Your task to perform on an android device: see creations saved in the google photos Image 0: 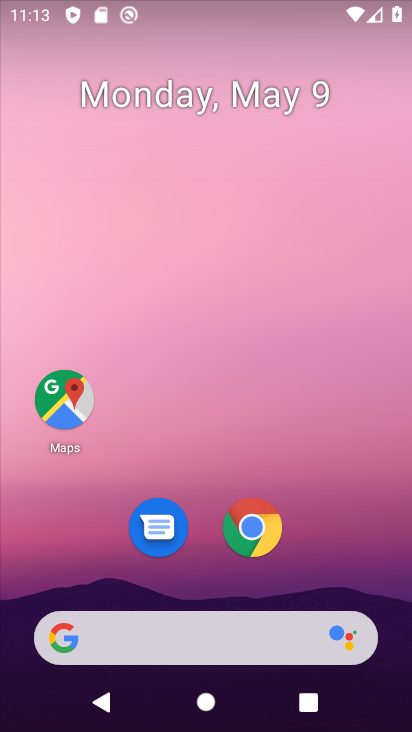
Step 0: drag from (167, 611) to (324, 17)
Your task to perform on an android device: see creations saved in the google photos Image 1: 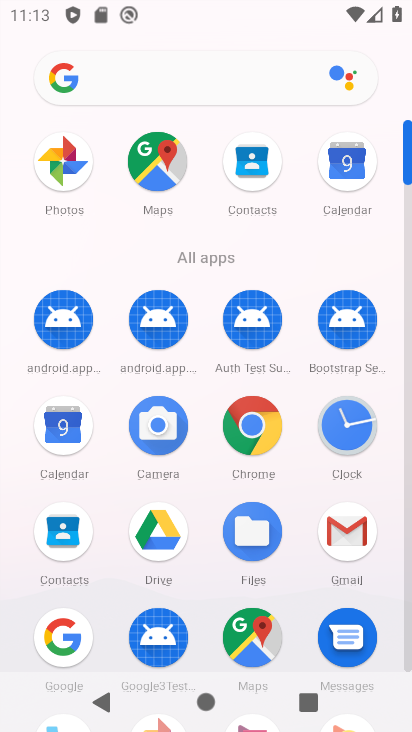
Step 1: drag from (159, 585) to (207, 413)
Your task to perform on an android device: see creations saved in the google photos Image 2: 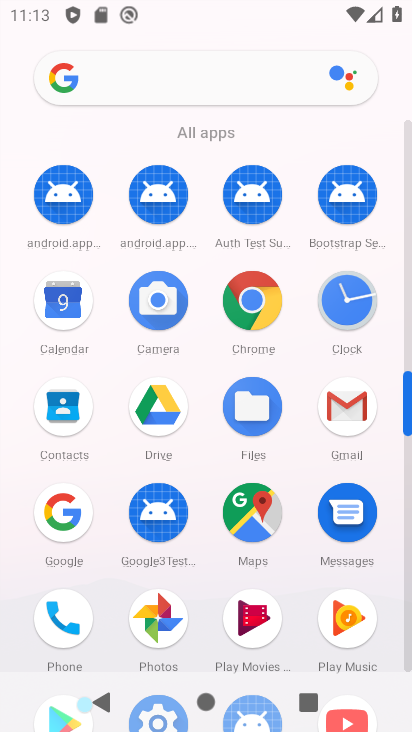
Step 2: click (168, 630)
Your task to perform on an android device: see creations saved in the google photos Image 3: 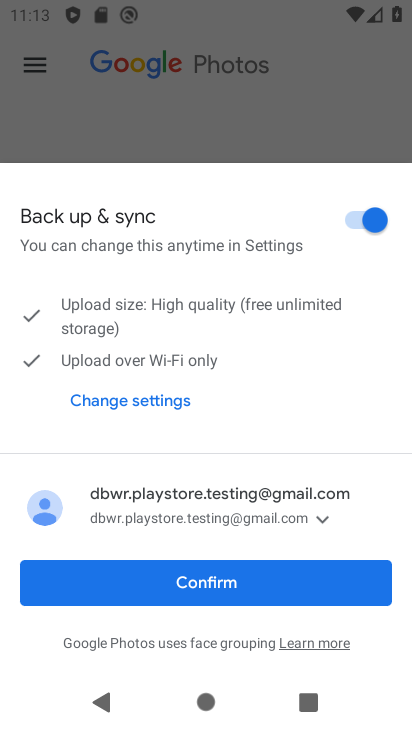
Step 3: click (221, 586)
Your task to perform on an android device: see creations saved in the google photos Image 4: 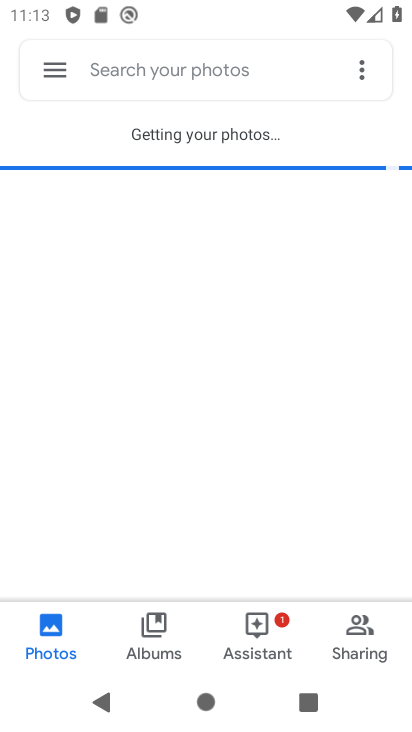
Step 4: click (151, 630)
Your task to perform on an android device: see creations saved in the google photos Image 5: 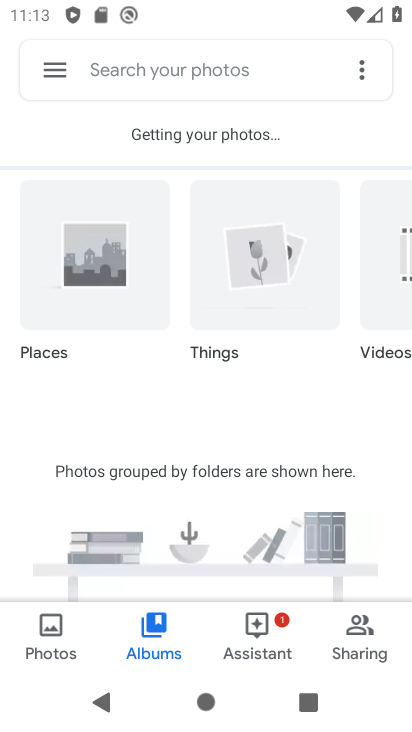
Step 5: drag from (362, 297) to (10, 263)
Your task to perform on an android device: see creations saved in the google photos Image 6: 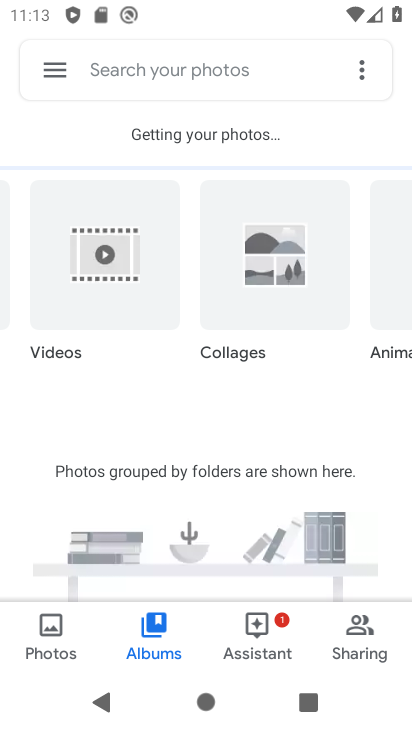
Step 6: drag from (349, 263) to (0, 264)
Your task to perform on an android device: see creations saved in the google photos Image 7: 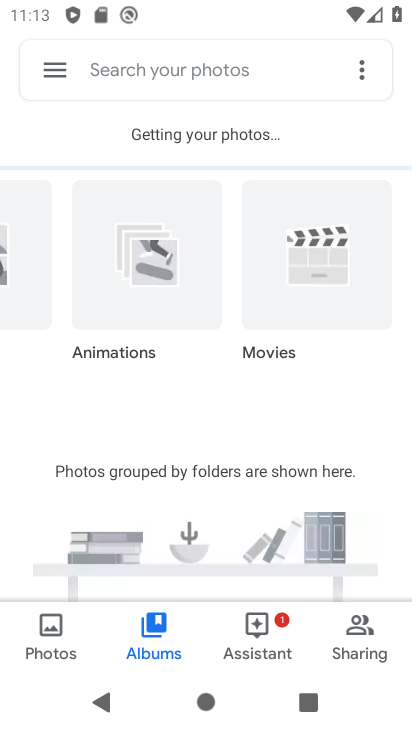
Step 7: drag from (382, 322) to (76, 306)
Your task to perform on an android device: see creations saved in the google photos Image 8: 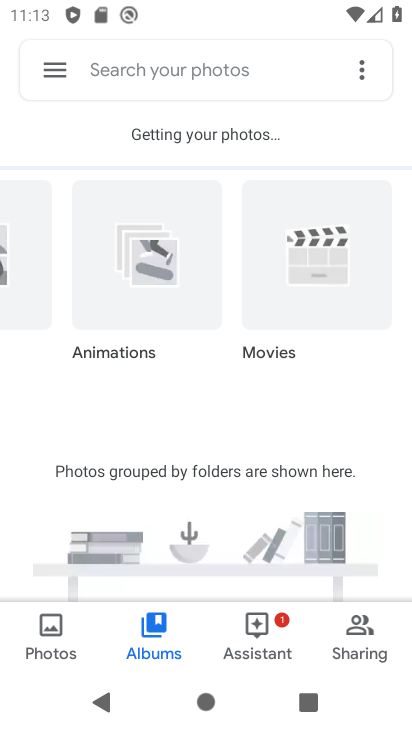
Step 8: drag from (57, 283) to (401, 256)
Your task to perform on an android device: see creations saved in the google photos Image 9: 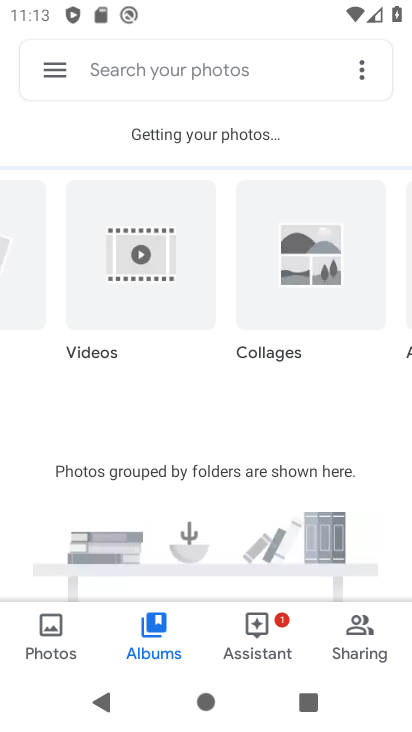
Step 9: drag from (70, 270) to (366, 246)
Your task to perform on an android device: see creations saved in the google photos Image 10: 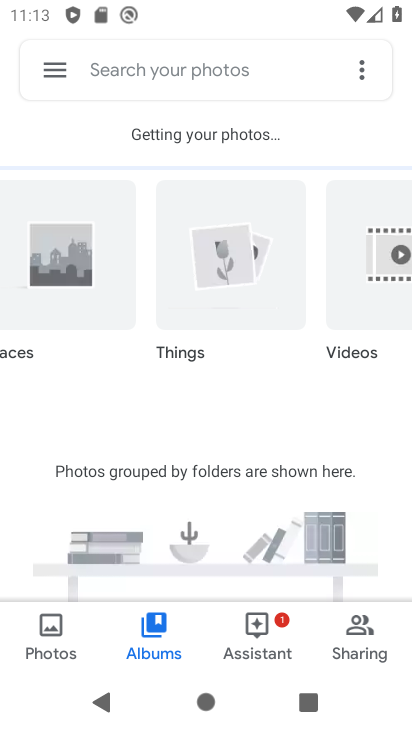
Step 10: drag from (137, 277) to (393, 240)
Your task to perform on an android device: see creations saved in the google photos Image 11: 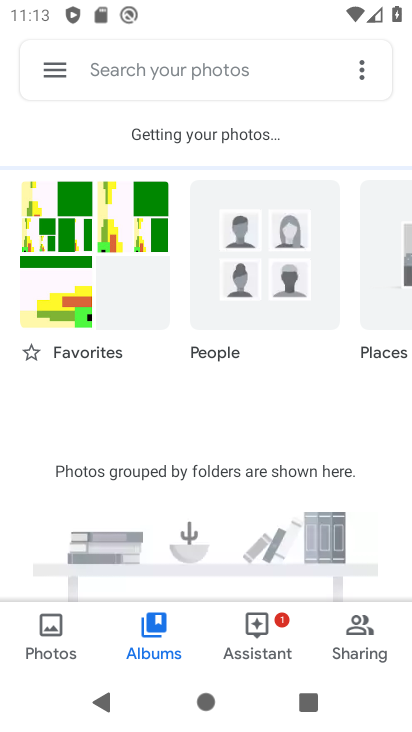
Step 11: click (213, 83)
Your task to perform on an android device: see creations saved in the google photos Image 12: 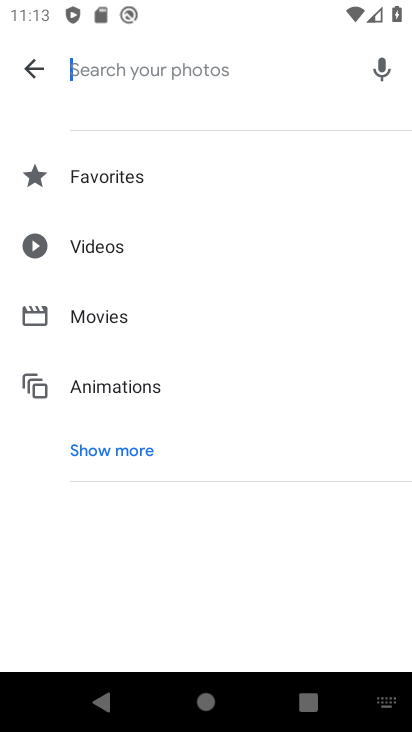
Step 12: click (127, 455)
Your task to perform on an android device: see creations saved in the google photos Image 13: 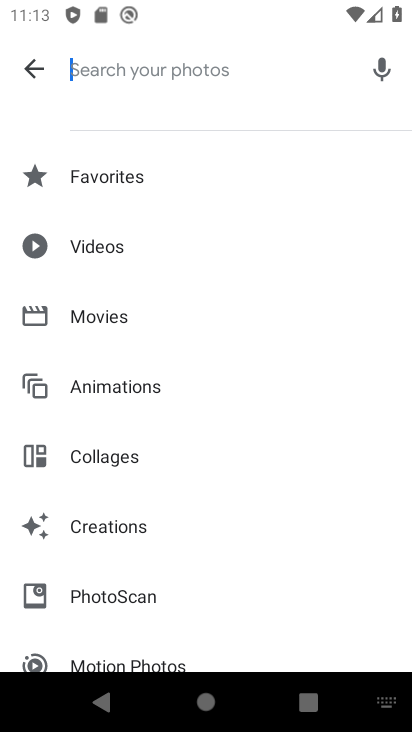
Step 13: drag from (154, 611) to (229, 258)
Your task to perform on an android device: see creations saved in the google photos Image 14: 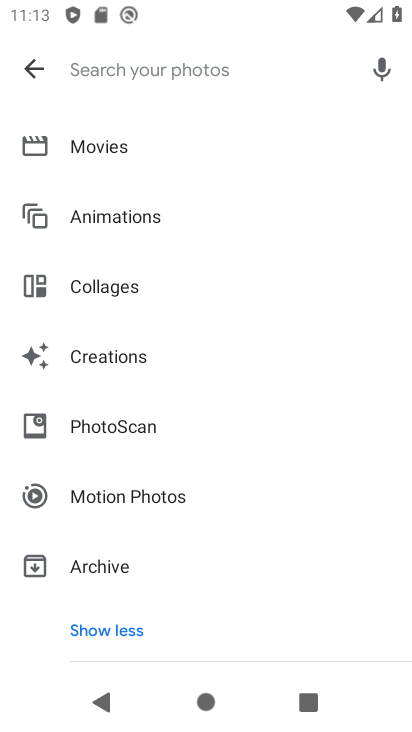
Step 14: click (182, 350)
Your task to perform on an android device: see creations saved in the google photos Image 15: 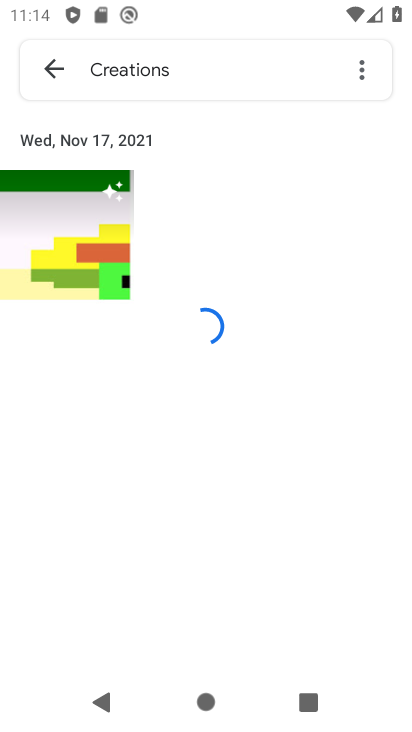
Step 15: task complete